Your task to perform on an android device: open sync settings in chrome Image 0: 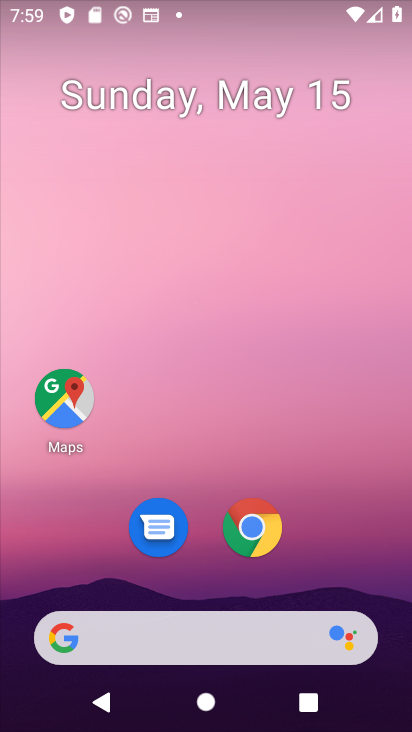
Step 0: click (249, 534)
Your task to perform on an android device: open sync settings in chrome Image 1: 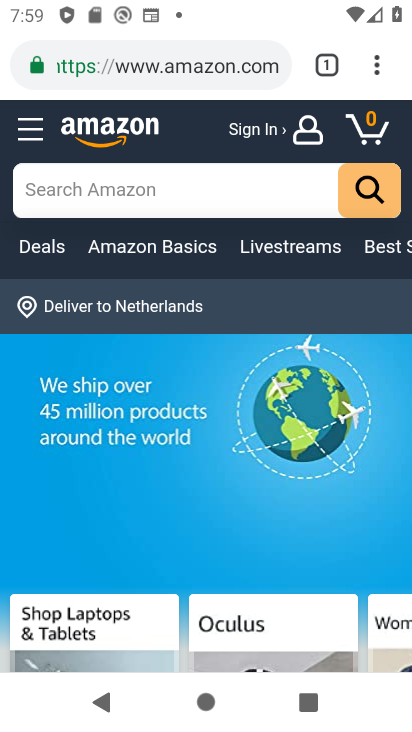
Step 1: drag from (379, 71) to (183, 589)
Your task to perform on an android device: open sync settings in chrome Image 2: 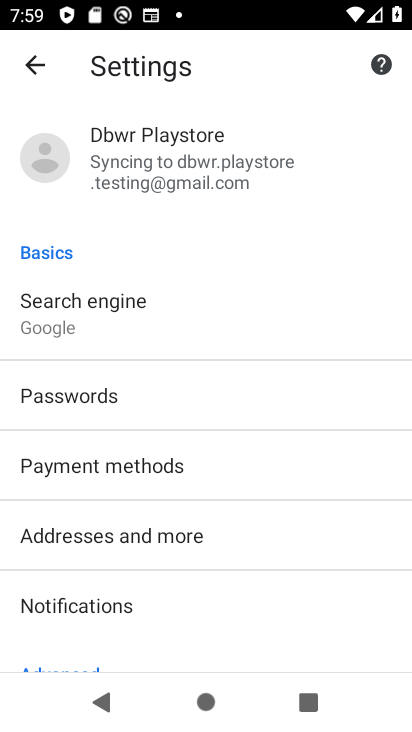
Step 2: click (167, 167)
Your task to perform on an android device: open sync settings in chrome Image 3: 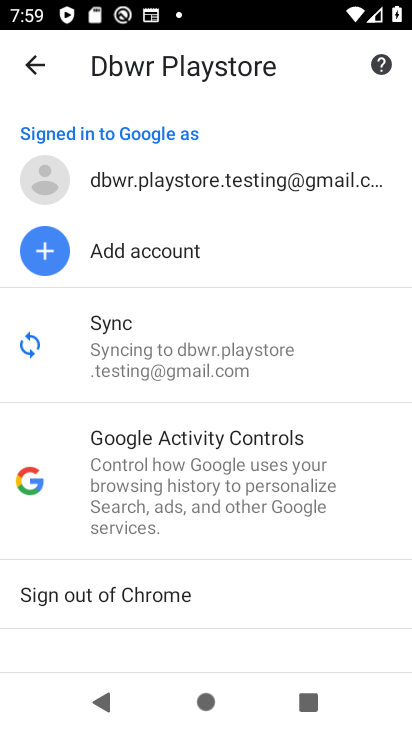
Step 3: click (152, 354)
Your task to perform on an android device: open sync settings in chrome Image 4: 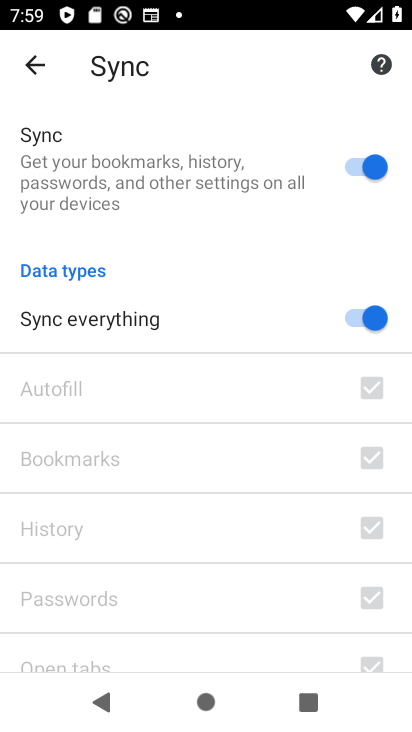
Step 4: task complete